Your task to perform on an android device: open a new tab in the chrome app Image 0: 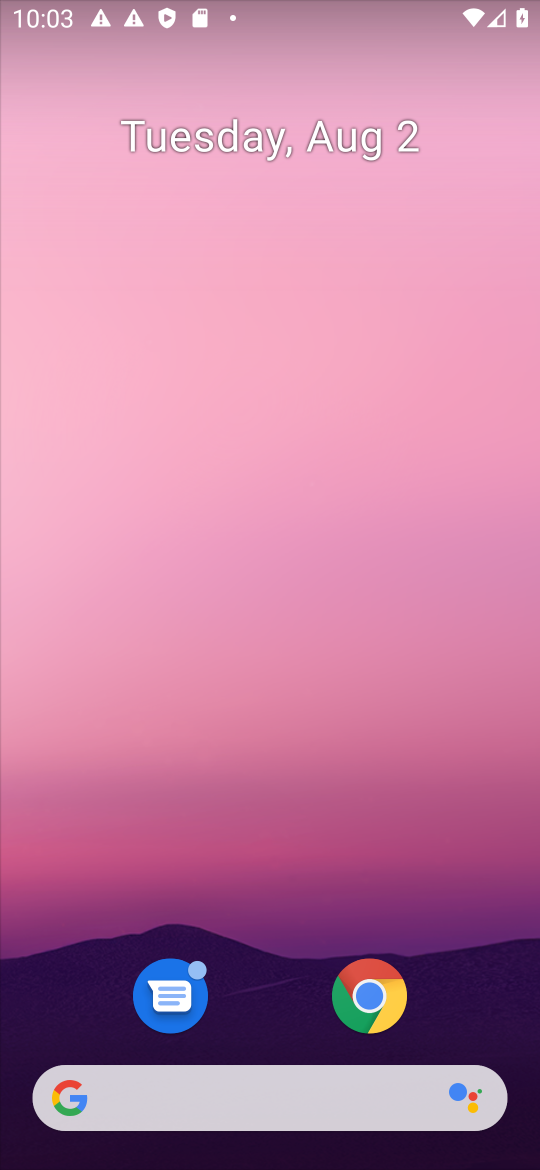
Step 0: click (372, 975)
Your task to perform on an android device: open a new tab in the chrome app Image 1: 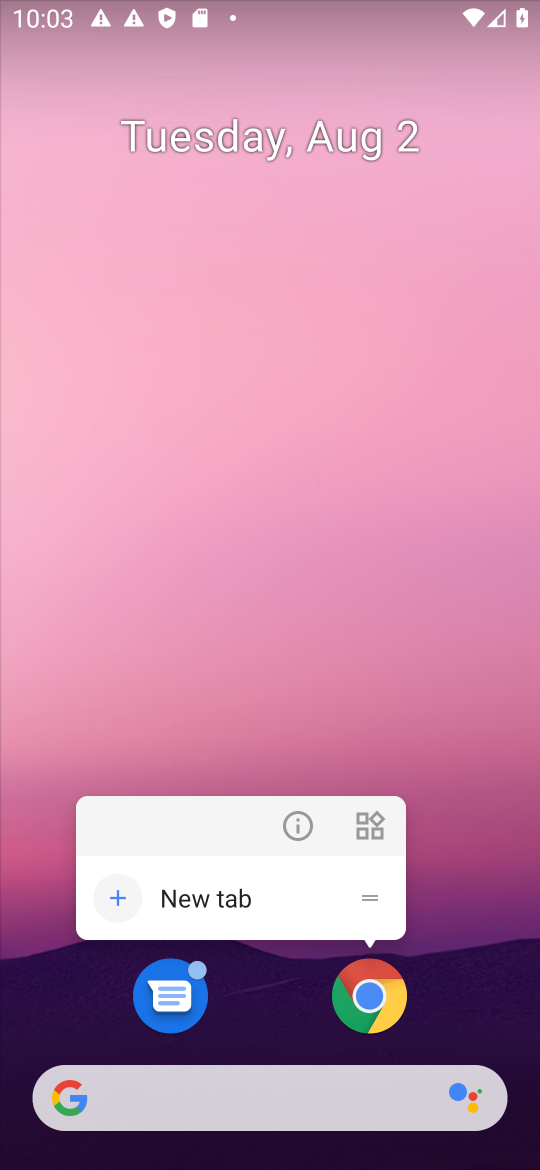
Step 1: click (375, 996)
Your task to perform on an android device: open a new tab in the chrome app Image 2: 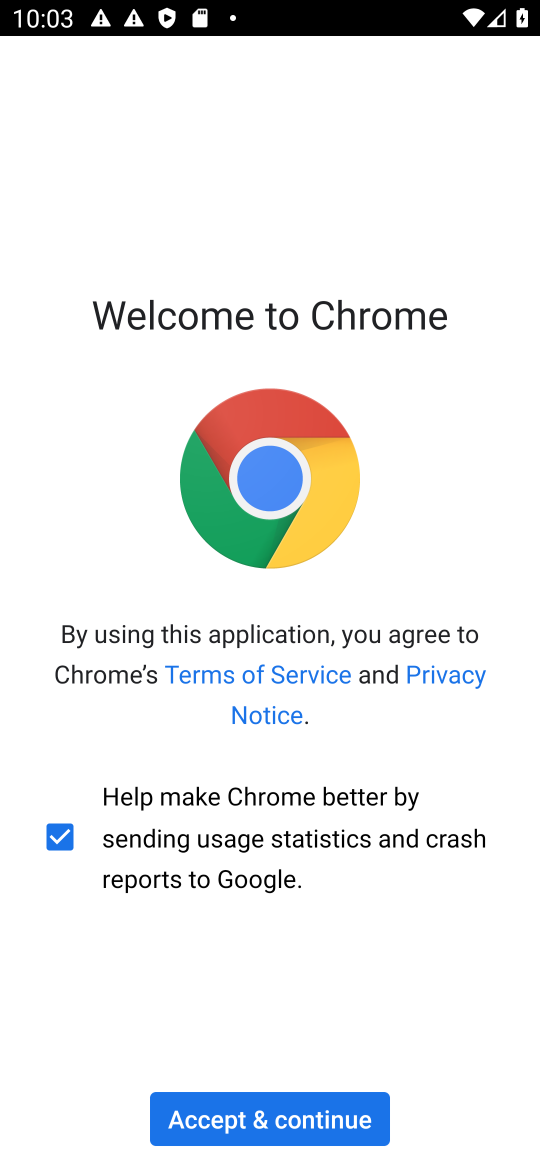
Step 2: click (304, 1122)
Your task to perform on an android device: open a new tab in the chrome app Image 3: 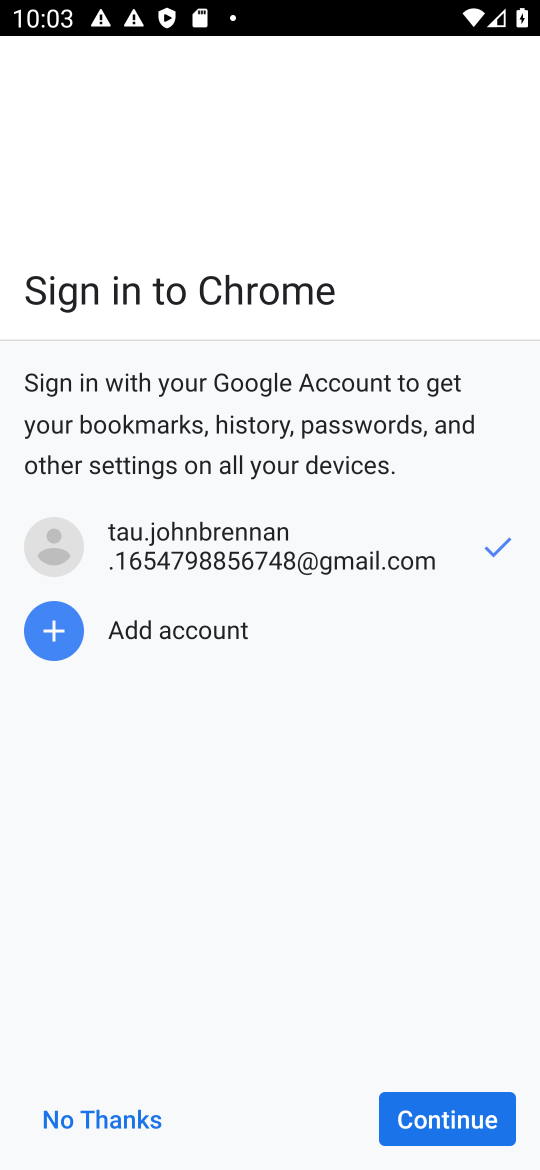
Step 3: click (411, 1108)
Your task to perform on an android device: open a new tab in the chrome app Image 4: 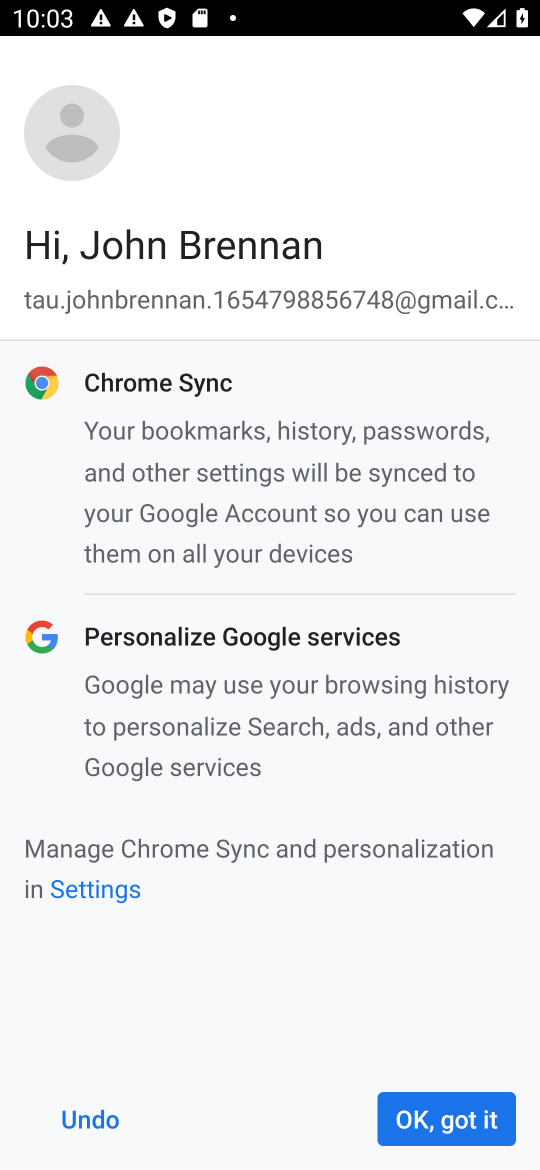
Step 4: click (441, 1111)
Your task to perform on an android device: open a new tab in the chrome app Image 5: 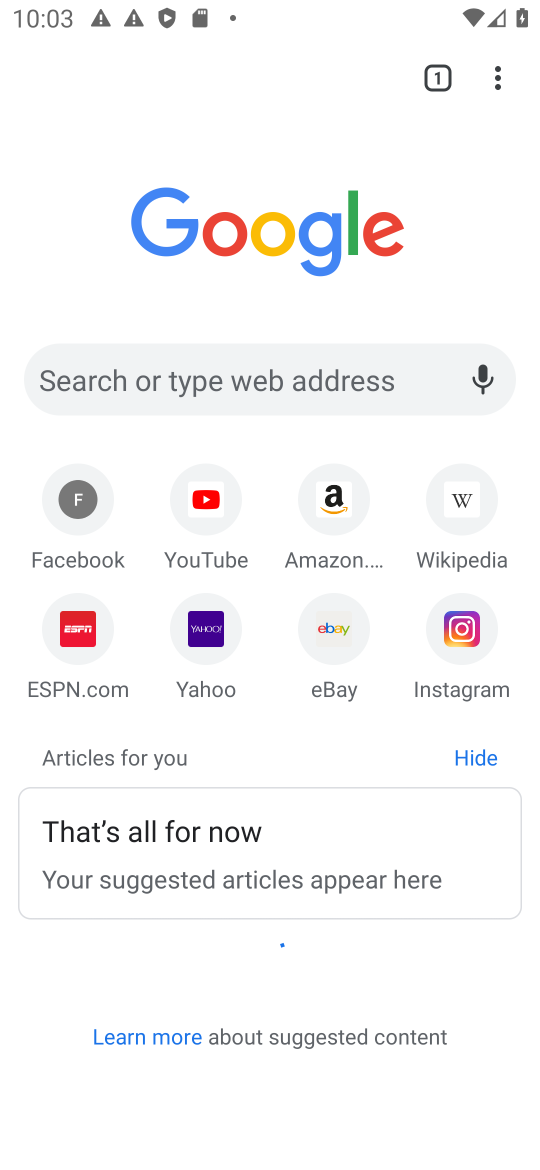
Step 5: click (445, 79)
Your task to perform on an android device: open a new tab in the chrome app Image 6: 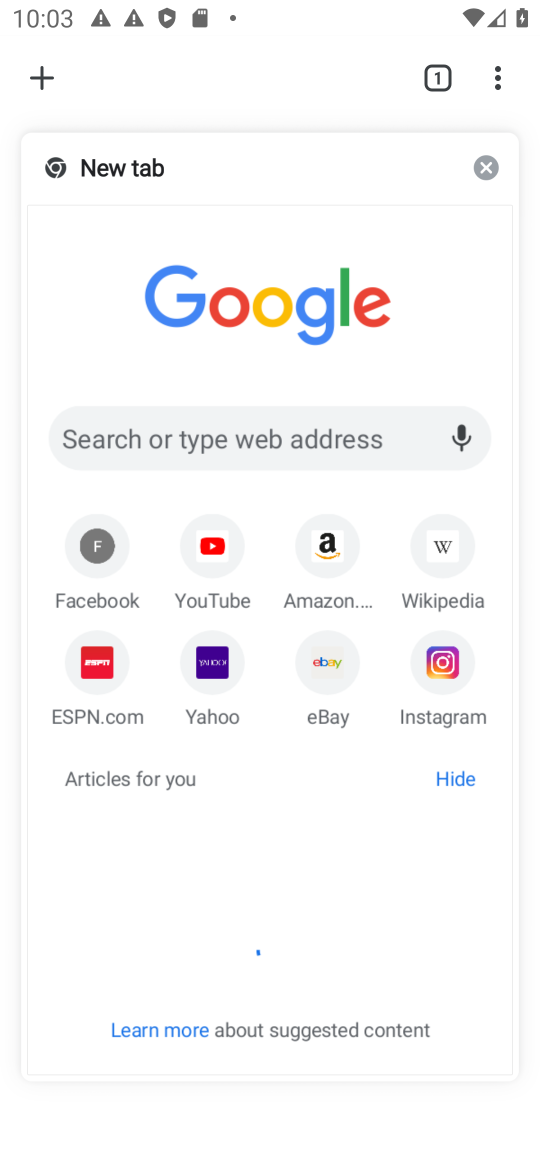
Step 6: click (47, 70)
Your task to perform on an android device: open a new tab in the chrome app Image 7: 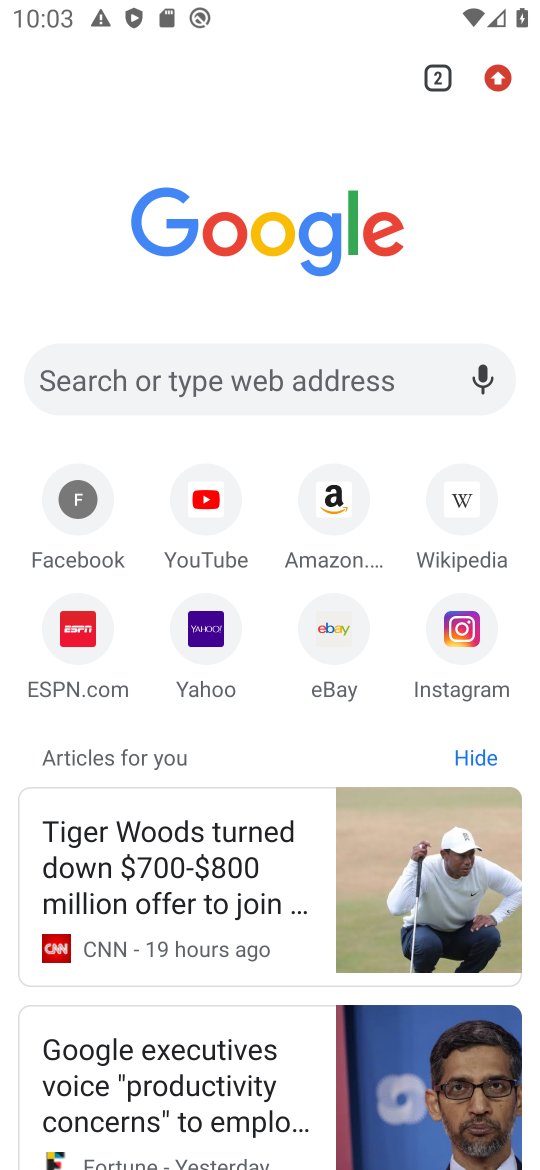
Step 7: task complete